Your task to perform on an android device: Open Google Maps and go to "Timeline" Image 0: 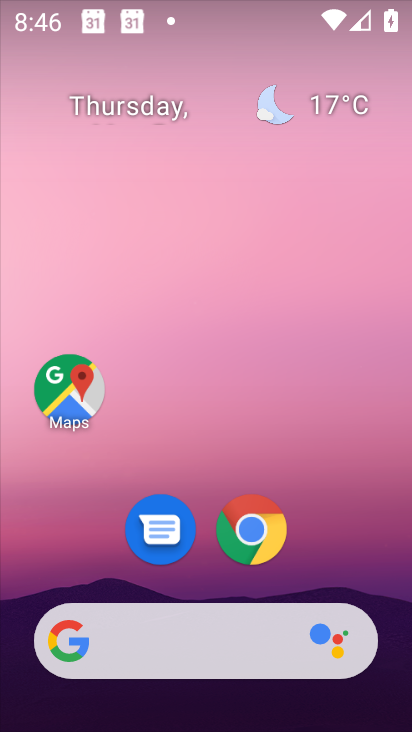
Step 0: click (66, 396)
Your task to perform on an android device: Open Google Maps and go to "Timeline" Image 1: 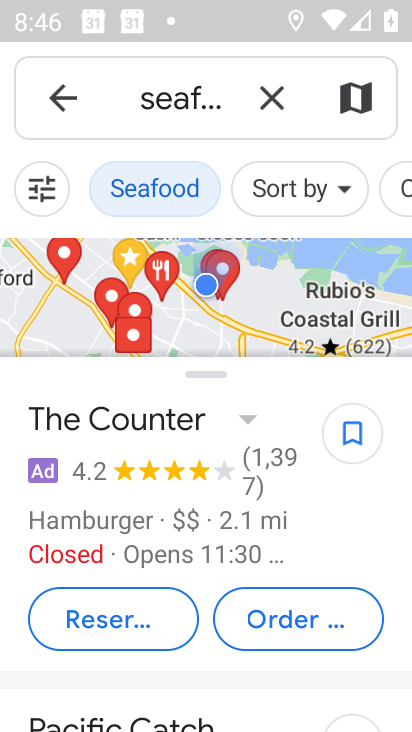
Step 1: click (266, 99)
Your task to perform on an android device: Open Google Maps and go to "Timeline" Image 2: 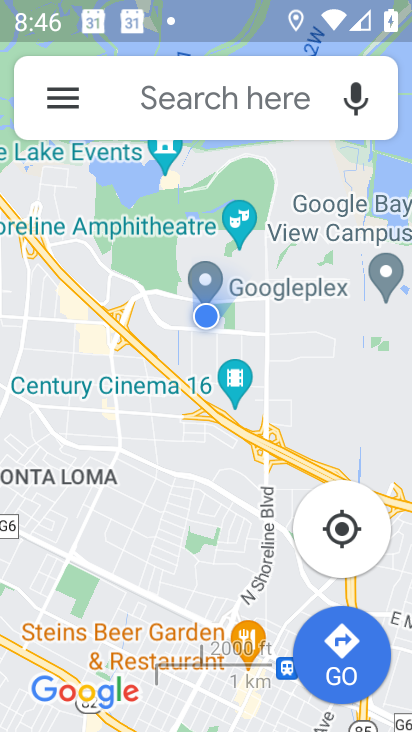
Step 2: click (55, 95)
Your task to perform on an android device: Open Google Maps and go to "Timeline" Image 3: 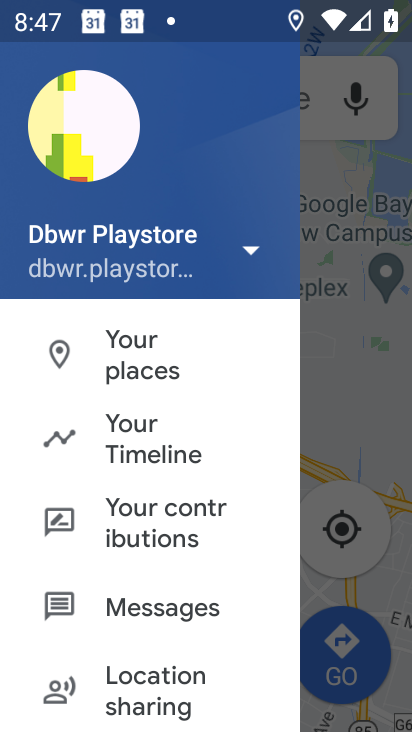
Step 3: click (135, 424)
Your task to perform on an android device: Open Google Maps and go to "Timeline" Image 4: 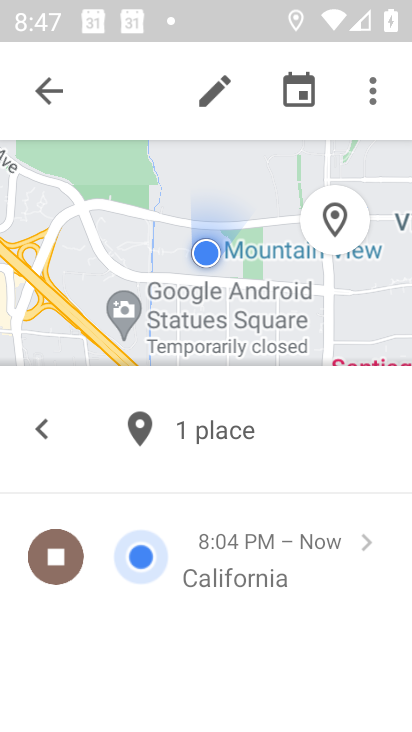
Step 4: task complete